Your task to perform on an android device: toggle translation in the chrome app Image 0: 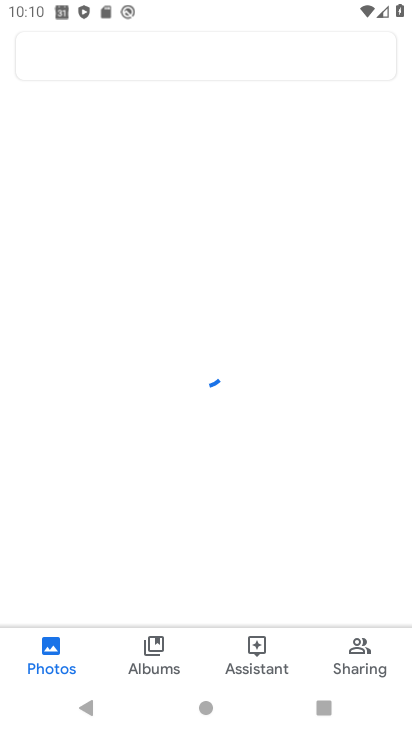
Step 0: press home button
Your task to perform on an android device: toggle translation in the chrome app Image 1: 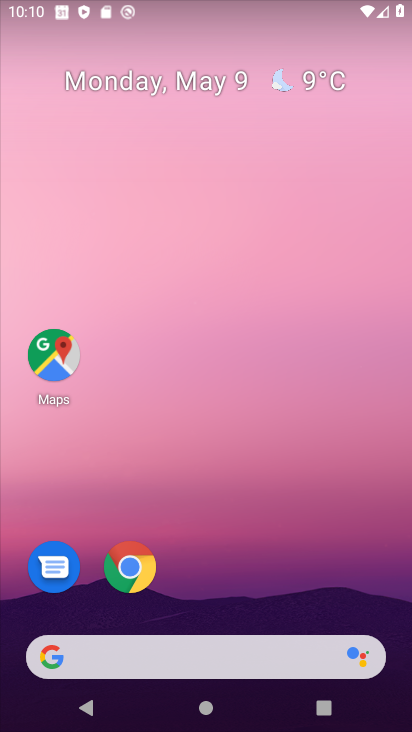
Step 1: drag from (205, 611) to (205, 41)
Your task to perform on an android device: toggle translation in the chrome app Image 2: 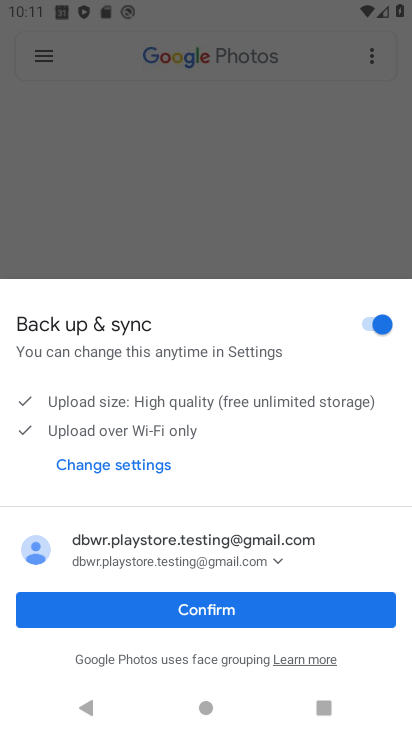
Step 2: press home button
Your task to perform on an android device: toggle translation in the chrome app Image 3: 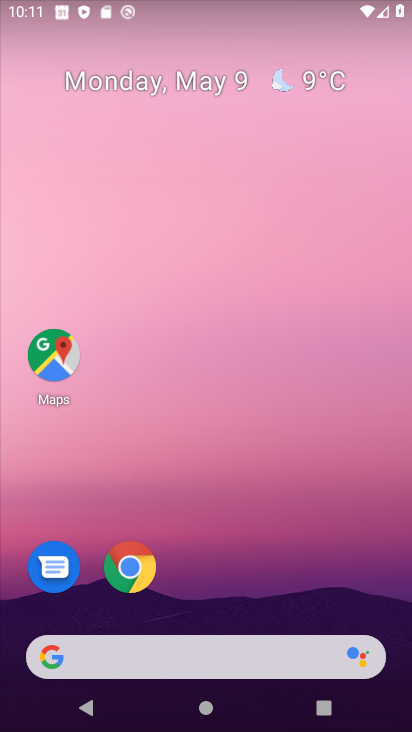
Step 3: click (127, 564)
Your task to perform on an android device: toggle translation in the chrome app Image 4: 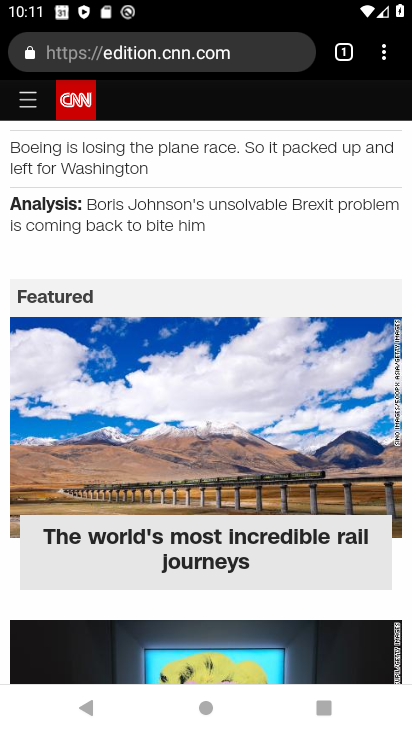
Step 4: click (386, 51)
Your task to perform on an android device: toggle translation in the chrome app Image 5: 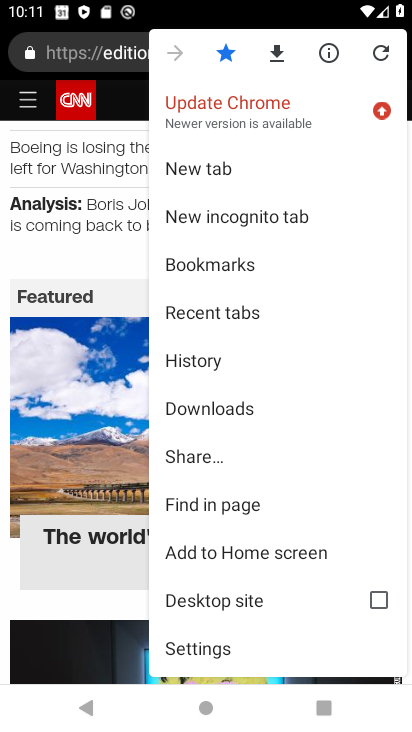
Step 5: click (239, 650)
Your task to perform on an android device: toggle translation in the chrome app Image 6: 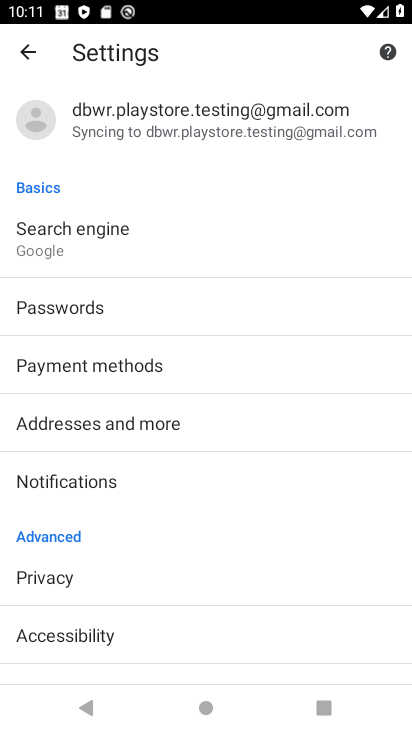
Step 6: drag from (162, 623) to (178, 455)
Your task to perform on an android device: toggle translation in the chrome app Image 7: 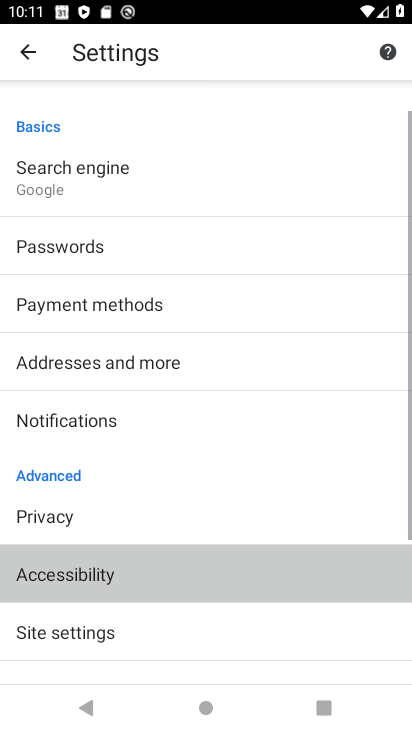
Step 7: drag from (188, 290) to (201, 91)
Your task to perform on an android device: toggle translation in the chrome app Image 8: 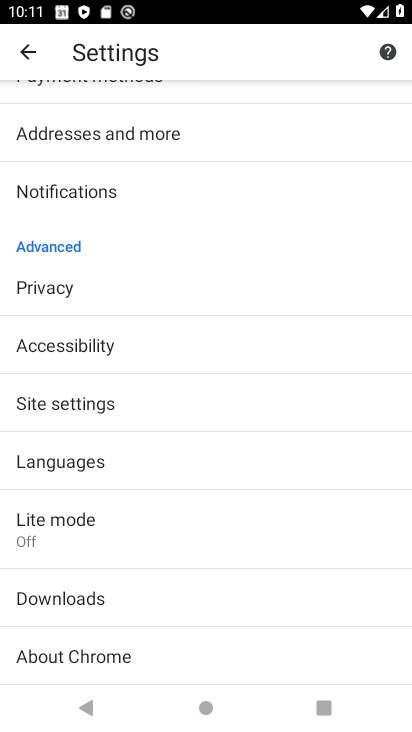
Step 8: click (116, 461)
Your task to perform on an android device: toggle translation in the chrome app Image 9: 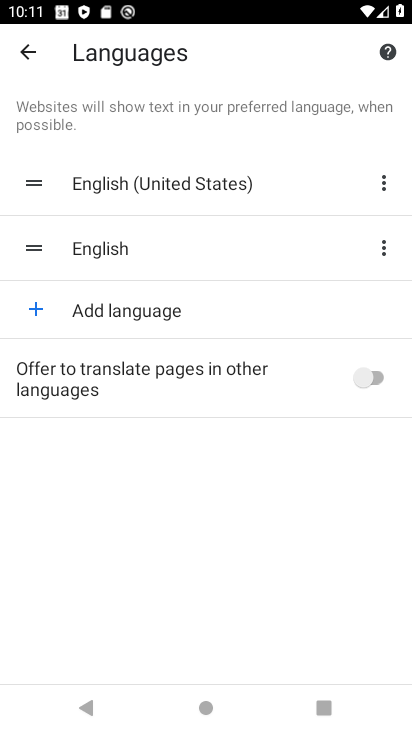
Step 9: click (371, 373)
Your task to perform on an android device: toggle translation in the chrome app Image 10: 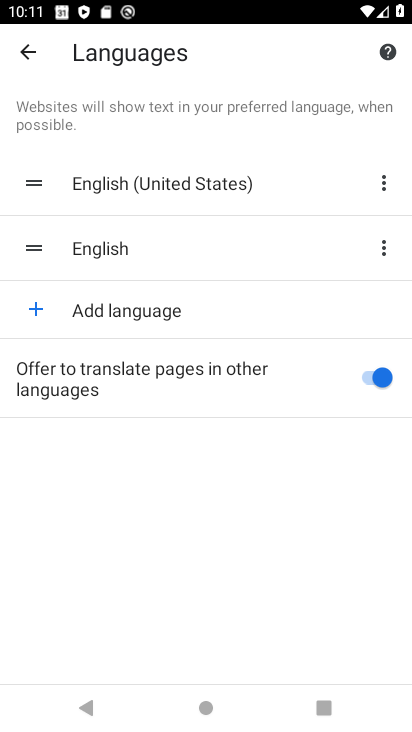
Step 10: task complete